Your task to perform on an android device: Go to notification settings Image 0: 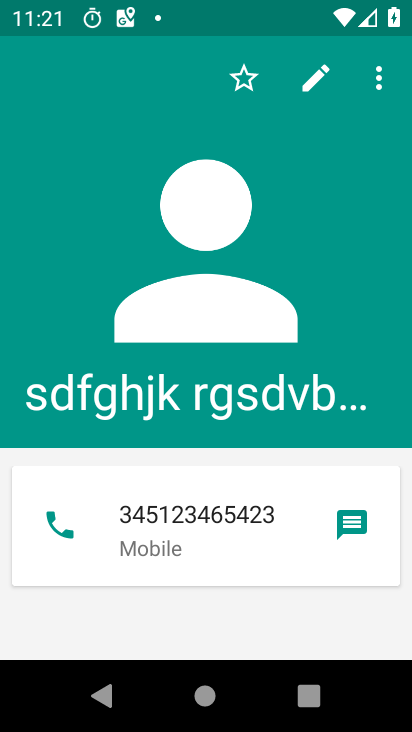
Step 0: press home button
Your task to perform on an android device: Go to notification settings Image 1: 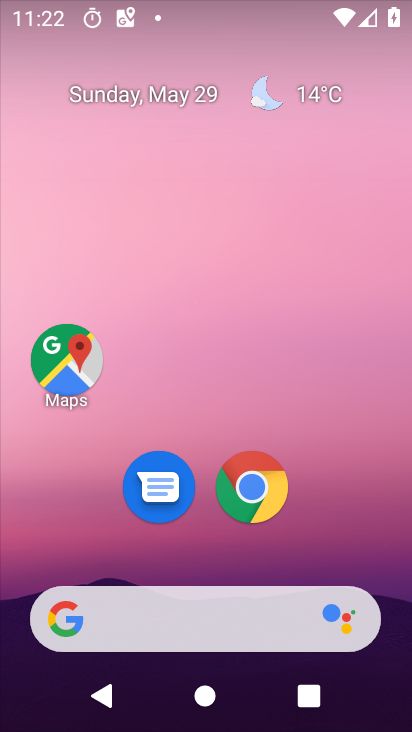
Step 1: drag from (394, 663) to (286, 121)
Your task to perform on an android device: Go to notification settings Image 2: 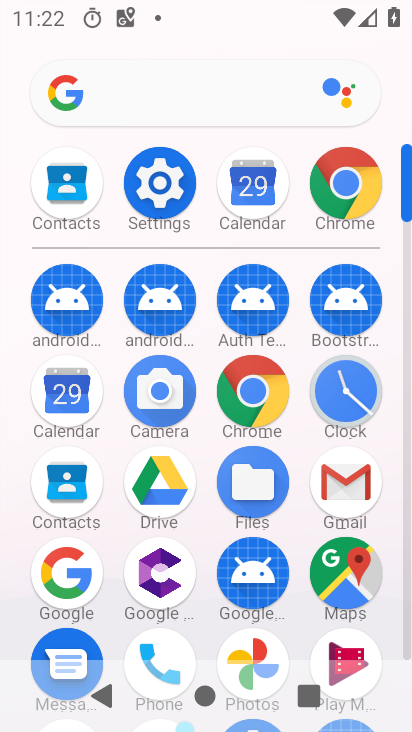
Step 2: click (127, 179)
Your task to perform on an android device: Go to notification settings Image 3: 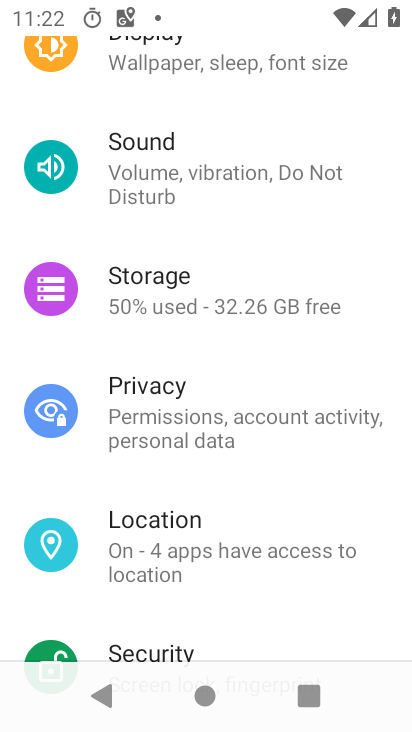
Step 3: drag from (323, 89) to (400, 628)
Your task to perform on an android device: Go to notification settings Image 4: 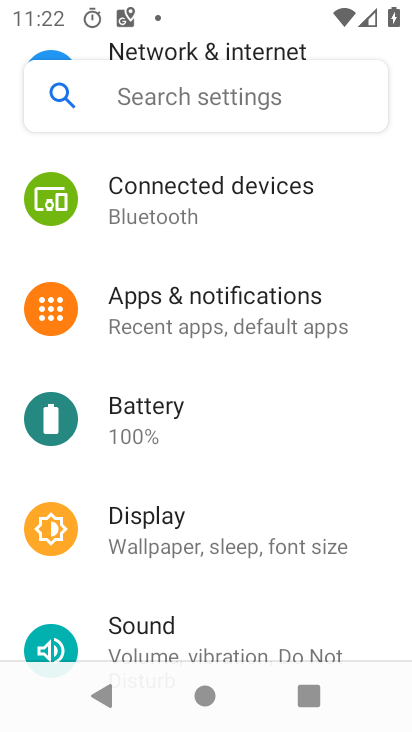
Step 4: click (229, 306)
Your task to perform on an android device: Go to notification settings Image 5: 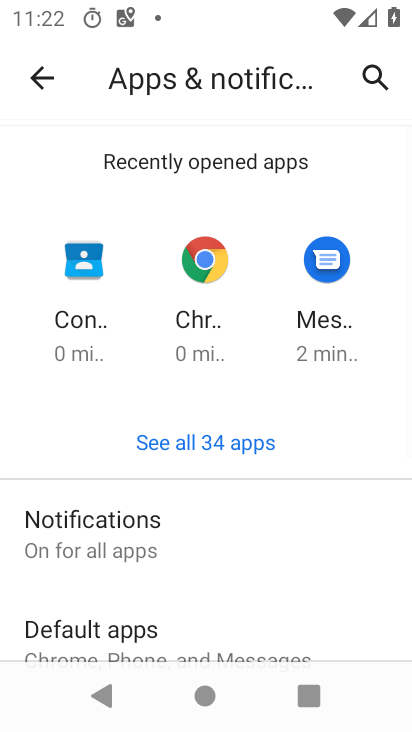
Step 5: click (115, 527)
Your task to perform on an android device: Go to notification settings Image 6: 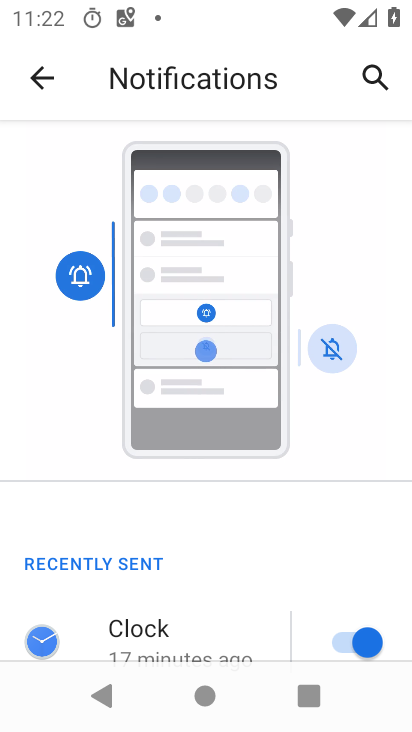
Step 6: task complete